Your task to perform on an android device: Go to display settings Image 0: 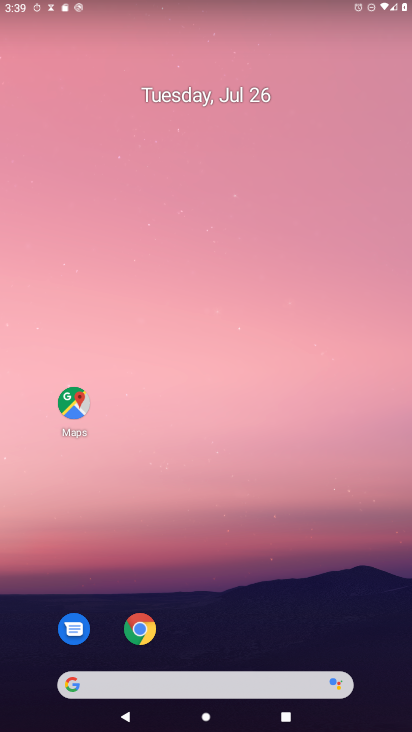
Step 0: drag from (181, 683) to (284, 2)
Your task to perform on an android device: Go to display settings Image 1: 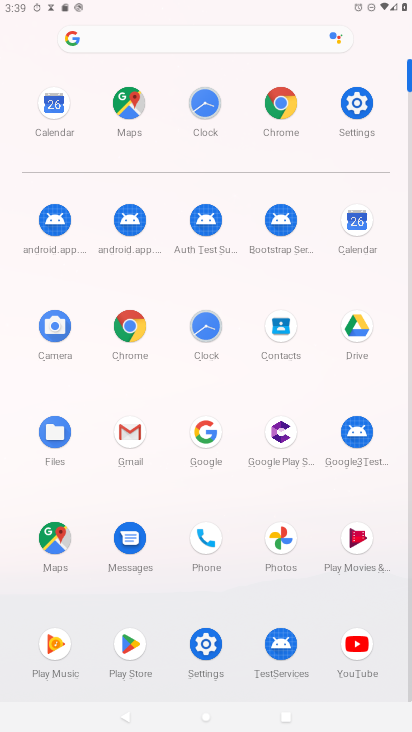
Step 1: click (354, 97)
Your task to perform on an android device: Go to display settings Image 2: 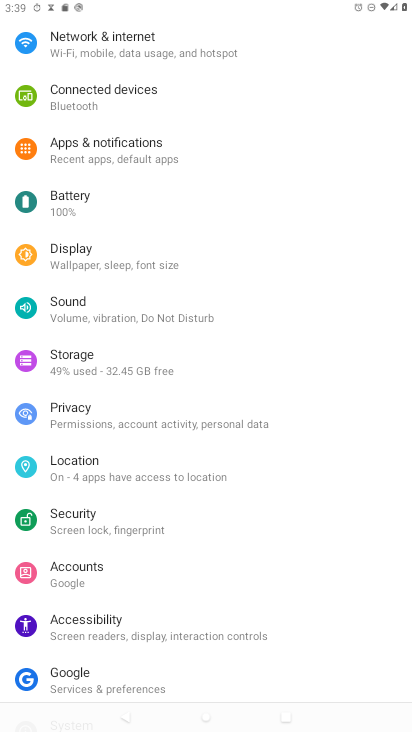
Step 2: click (94, 257)
Your task to perform on an android device: Go to display settings Image 3: 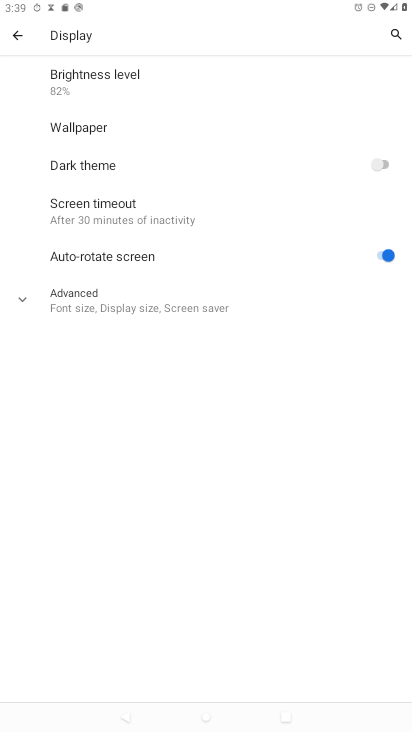
Step 3: task complete